Your task to perform on an android device: Open wifi settings Image 0: 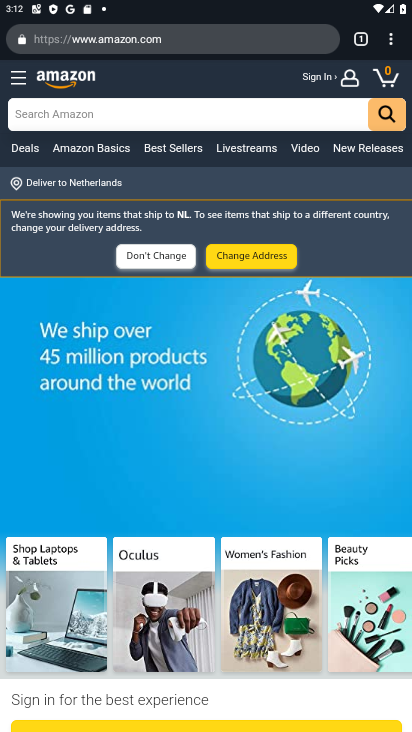
Step 0: press home button
Your task to perform on an android device: Open wifi settings Image 1: 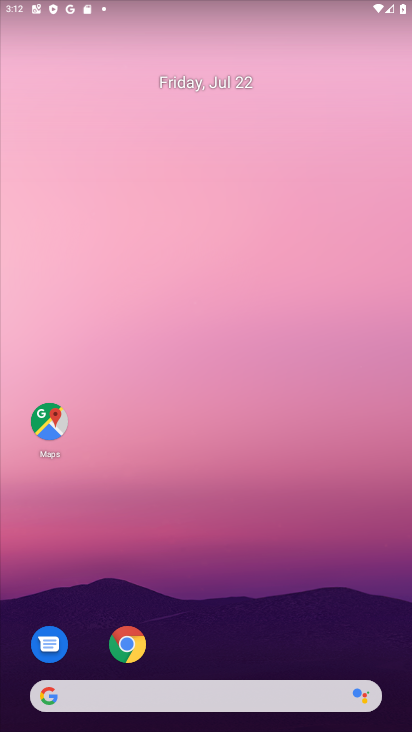
Step 1: drag from (245, 602) to (298, 330)
Your task to perform on an android device: Open wifi settings Image 2: 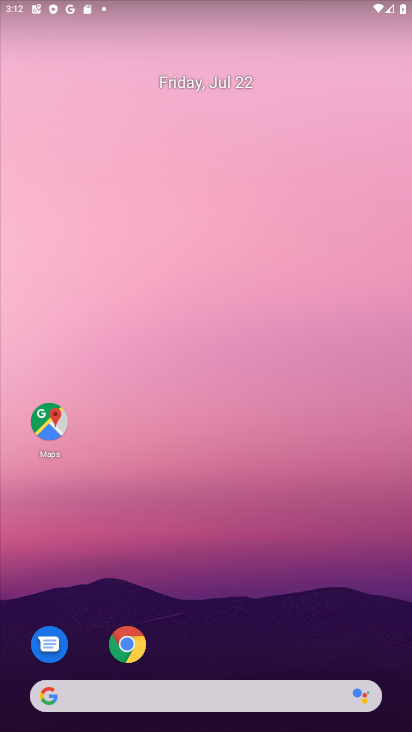
Step 2: drag from (234, 514) to (259, 160)
Your task to perform on an android device: Open wifi settings Image 3: 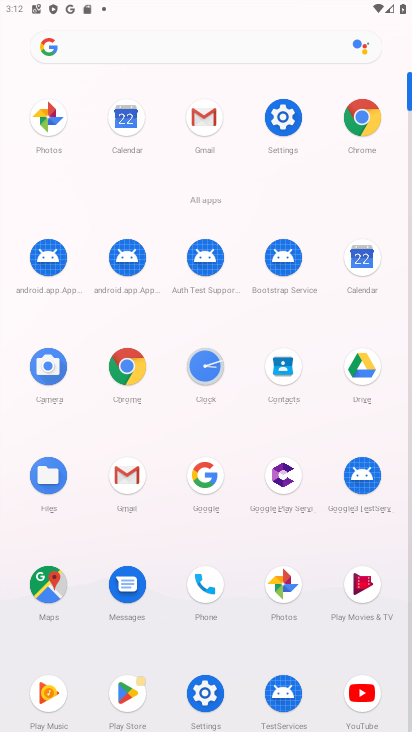
Step 3: click (290, 127)
Your task to perform on an android device: Open wifi settings Image 4: 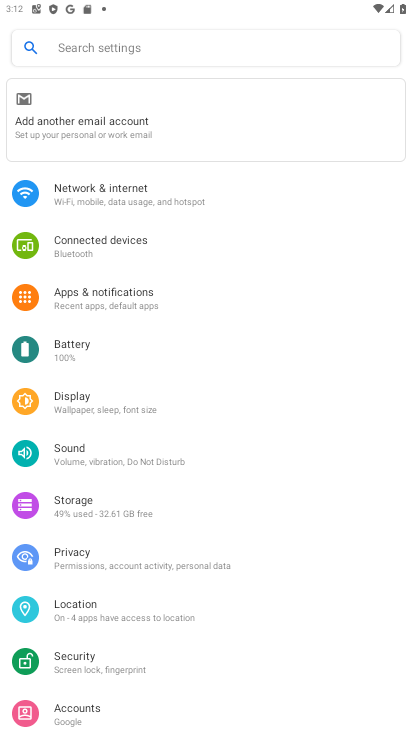
Step 4: click (115, 193)
Your task to perform on an android device: Open wifi settings Image 5: 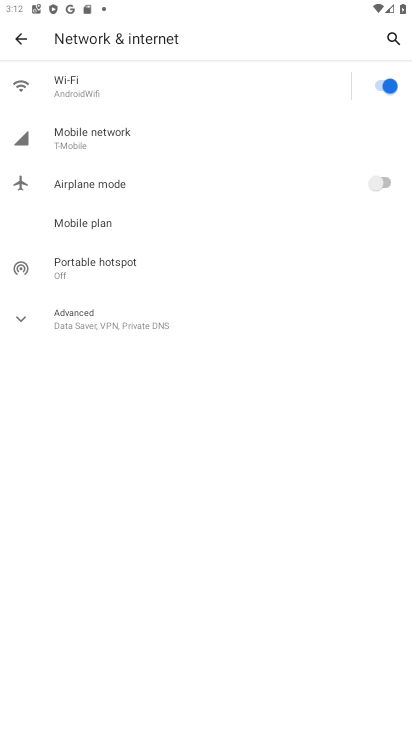
Step 5: task complete